Your task to perform on an android device: Show me recent news Image 0: 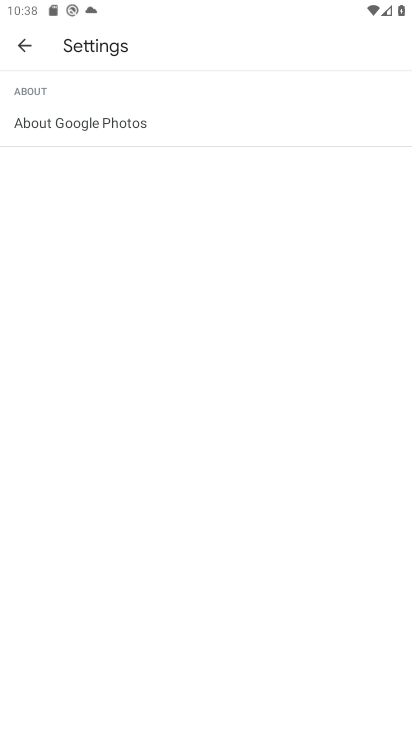
Step 0: press home button
Your task to perform on an android device: Show me recent news Image 1: 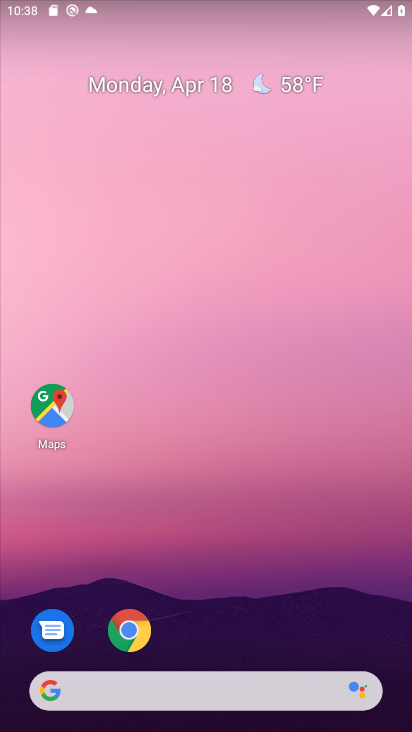
Step 1: task complete